Your task to perform on an android device: check out phone information Image 0: 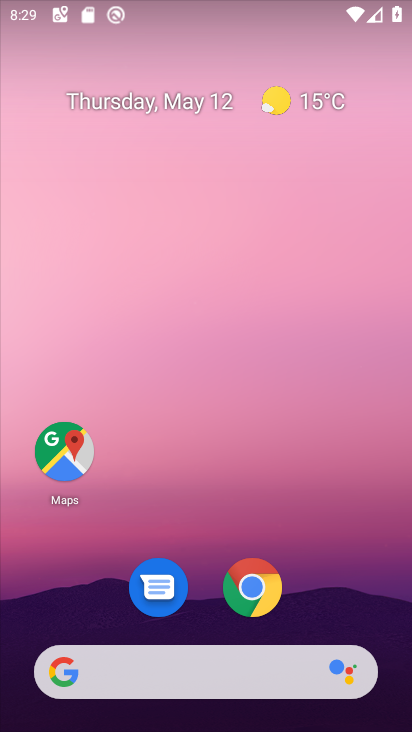
Step 0: drag from (382, 621) to (273, 55)
Your task to perform on an android device: check out phone information Image 1: 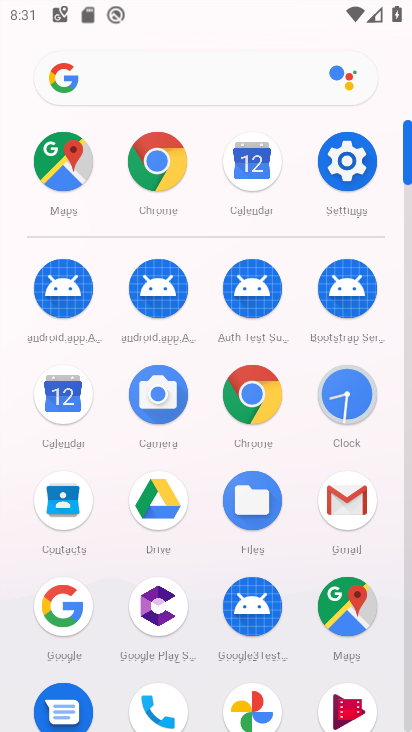
Step 1: click (317, 175)
Your task to perform on an android device: check out phone information Image 2: 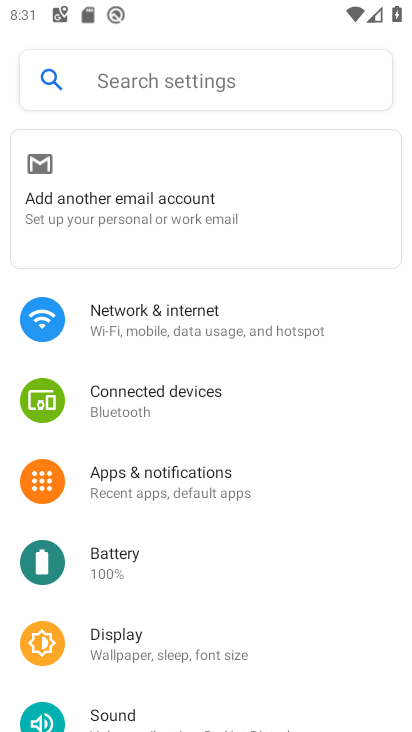
Step 2: drag from (171, 646) to (226, 68)
Your task to perform on an android device: check out phone information Image 3: 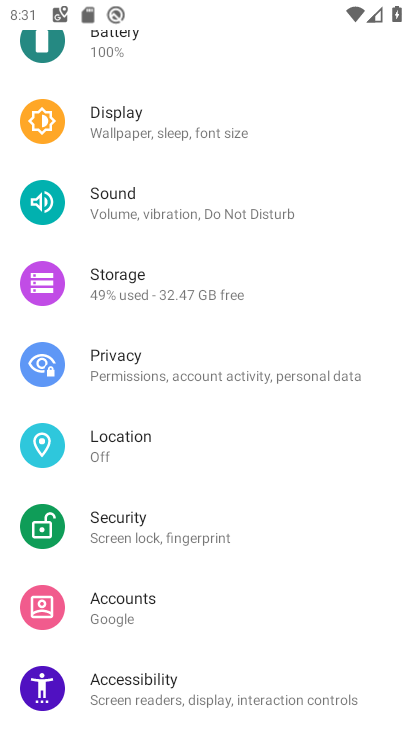
Step 3: drag from (199, 632) to (284, 35)
Your task to perform on an android device: check out phone information Image 4: 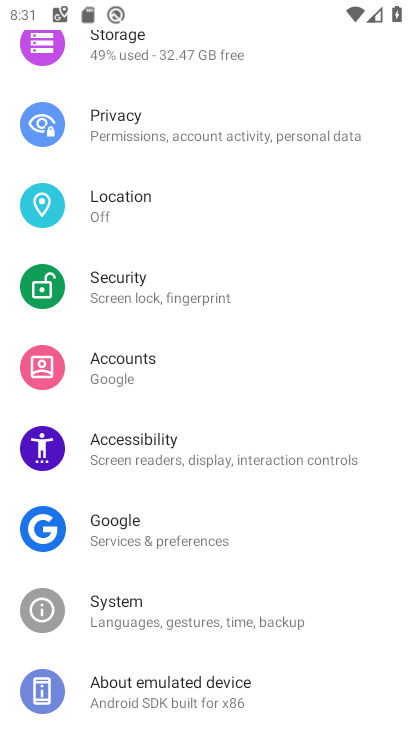
Step 4: click (156, 688)
Your task to perform on an android device: check out phone information Image 5: 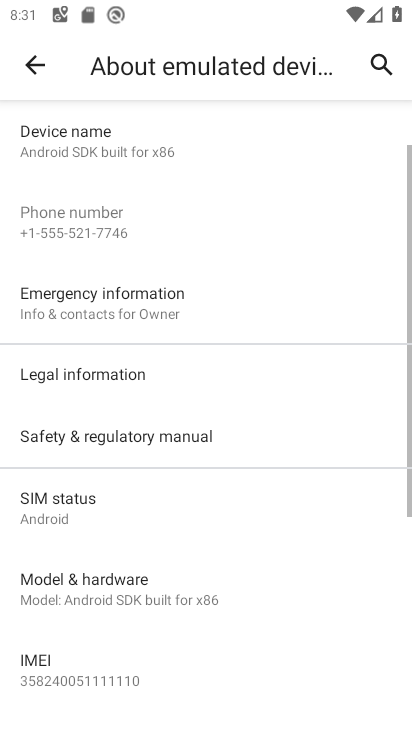
Step 5: task complete